Your task to perform on an android device: Open Chrome and go to settings Image 0: 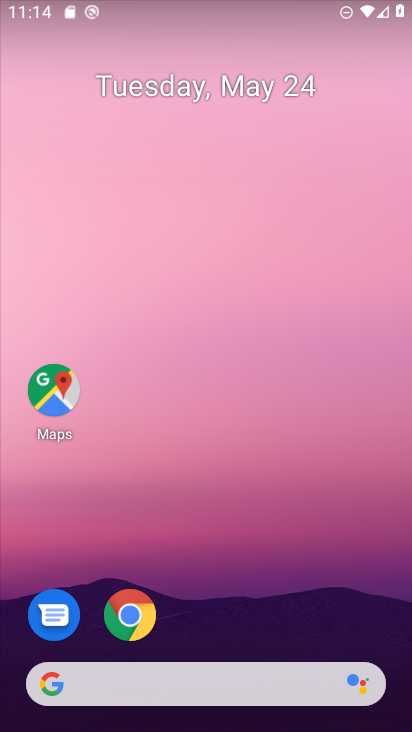
Step 0: press home button
Your task to perform on an android device: Open Chrome and go to settings Image 1: 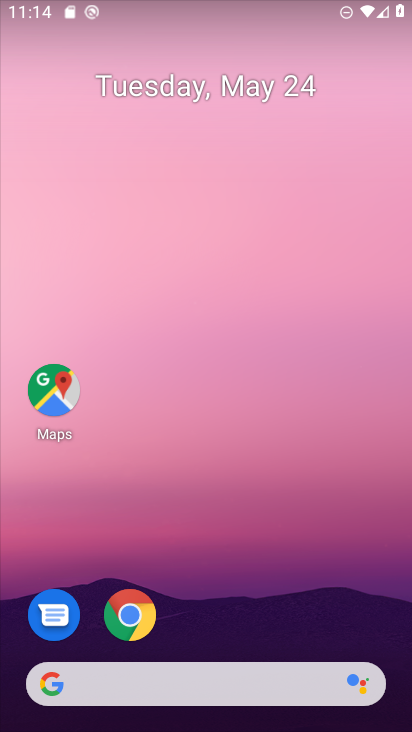
Step 1: drag from (268, 724) to (406, 39)
Your task to perform on an android device: Open Chrome and go to settings Image 2: 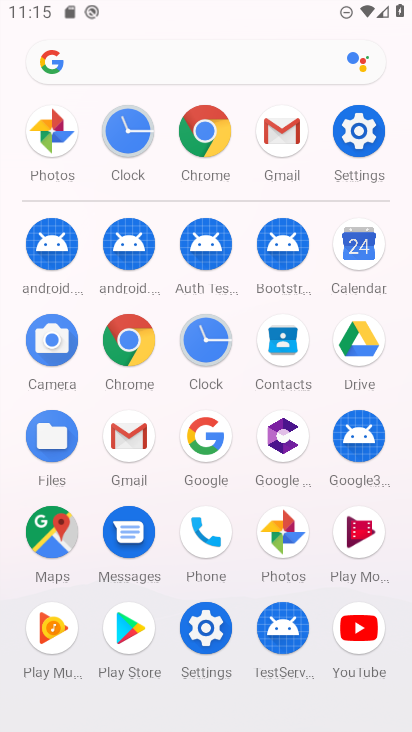
Step 2: click (213, 141)
Your task to perform on an android device: Open Chrome and go to settings Image 3: 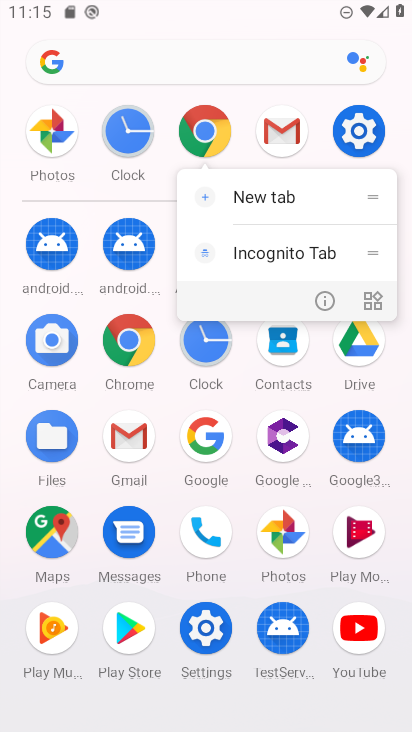
Step 3: click (208, 123)
Your task to perform on an android device: Open Chrome and go to settings Image 4: 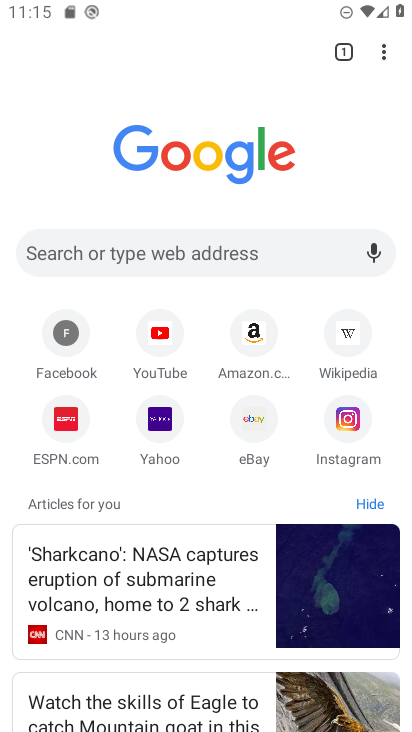
Step 4: click (374, 69)
Your task to perform on an android device: Open Chrome and go to settings Image 5: 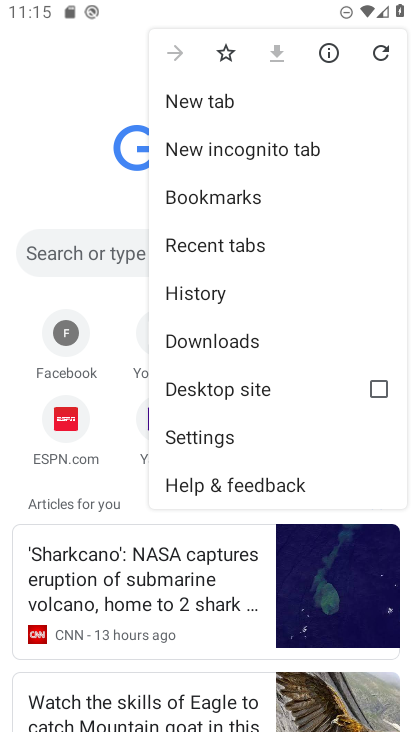
Step 5: click (212, 436)
Your task to perform on an android device: Open Chrome and go to settings Image 6: 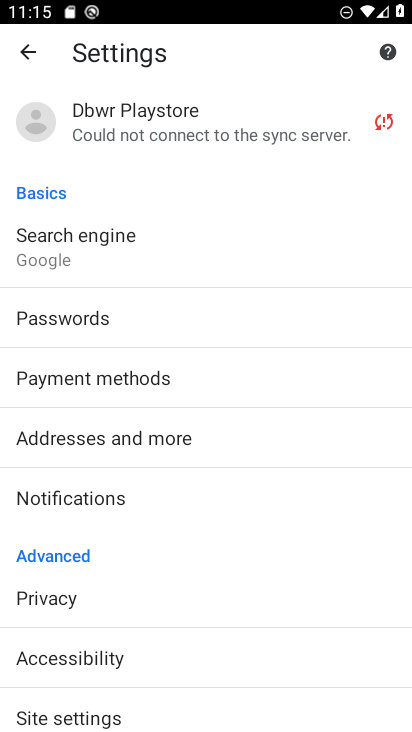
Step 6: task complete